Your task to perform on an android device: check android version Image 0: 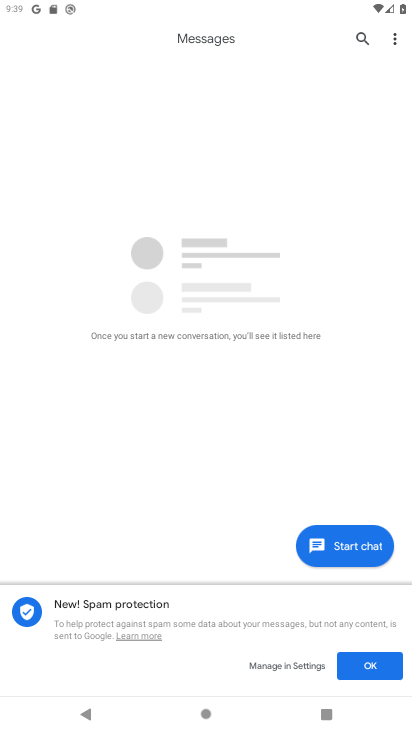
Step 0: press home button
Your task to perform on an android device: check android version Image 1: 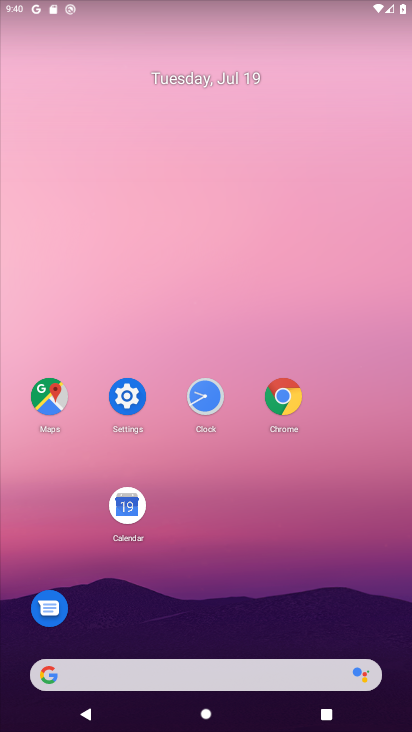
Step 1: click (117, 388)
Your task to perform on an android device: check android version Image 2: 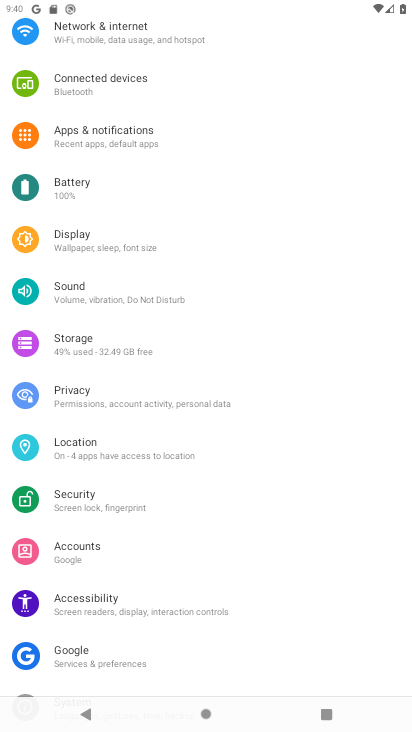
Step 2: drag from (254, 664) to (228, 222)
Your task to perform on an android device: check android version Image 3: 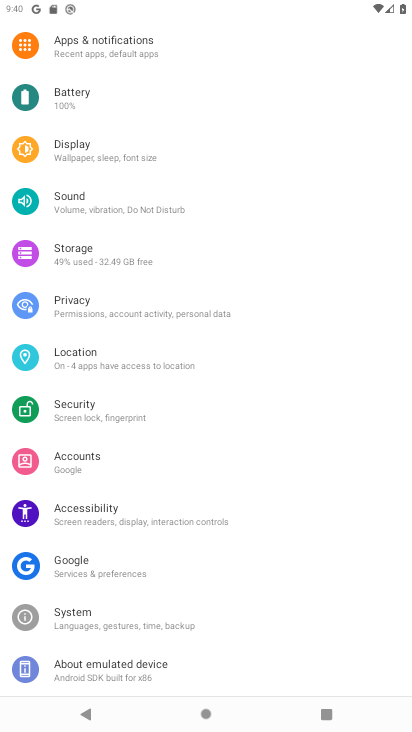
Step 3: click (97, 658)
Your task to perform on an android device: check android version Image 4: 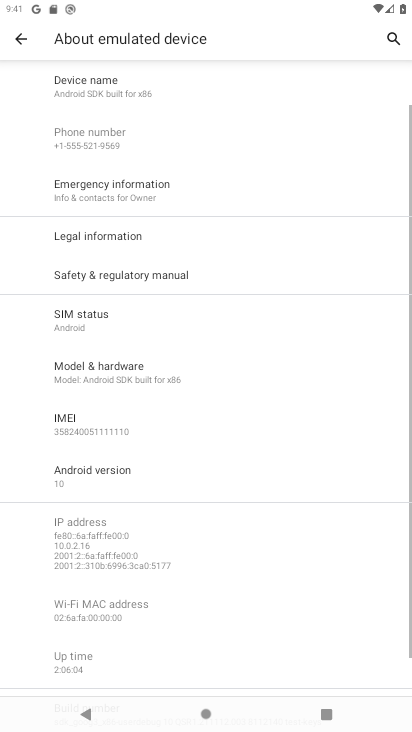
Step 4: click (66, 476)
Your task to perform on an android device: check android version Image 5: 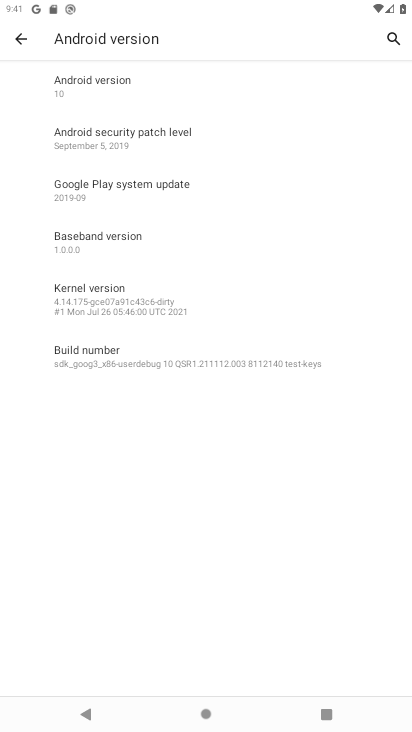
Step 5: click (149, 87)
Your task to perform on an android device: check android version Image 6: 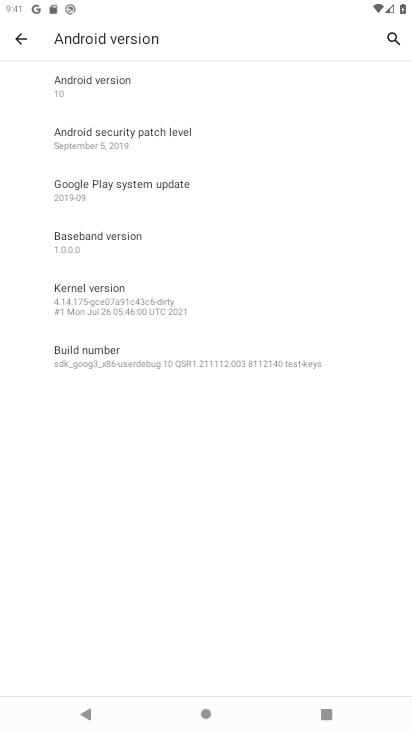
Step 6: task complete